Your task to perform on an android device: delete browsing data in the chrome app Image 0: 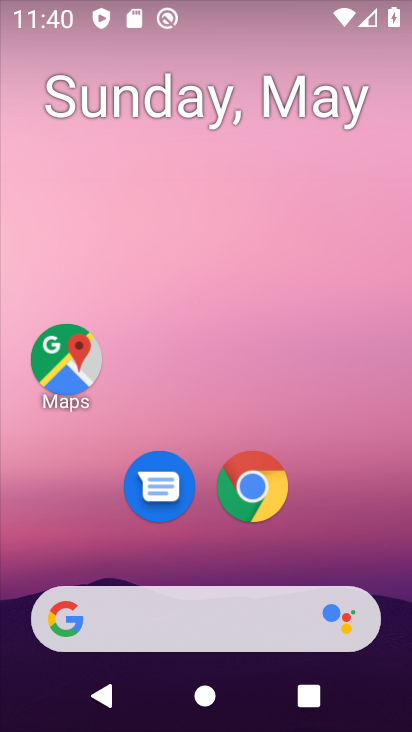
Step 0: click (255, 496)
Your task to perform on an android device: delete browsing data in the chrome app Image 1: 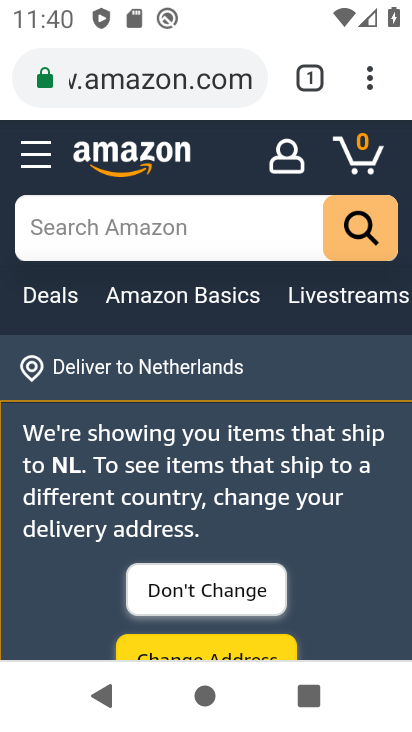
Step 1: drag from (376, 80) to (189, 452)
Your task to perform on an android device: delete browsing data in the chrome app Image 2: 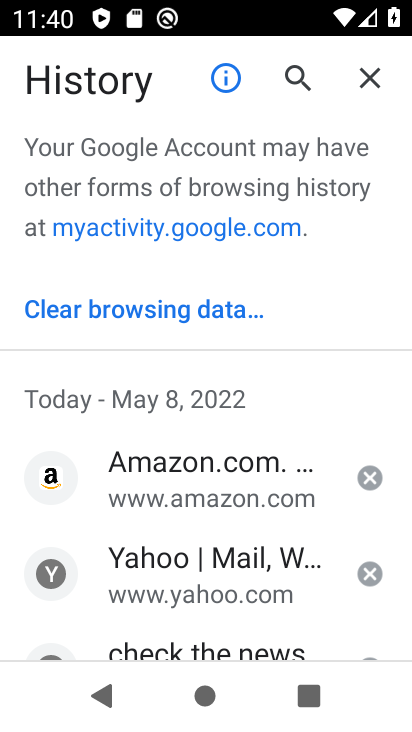
Step 2: click (192, 307)
Your task to perform on an android device: delete browsing data in the chrome app Image 3: 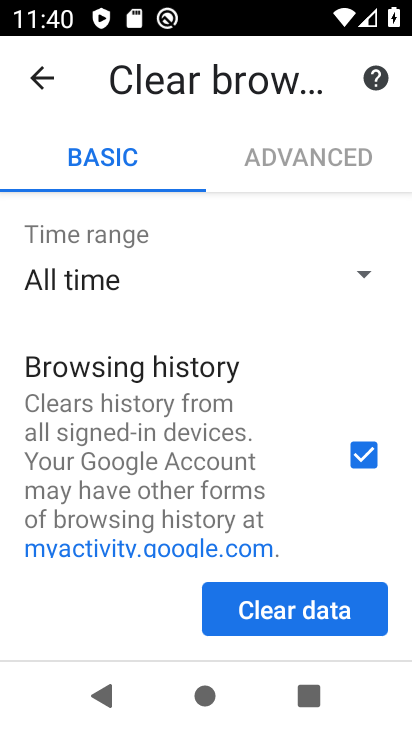
Step 3: click (331, 600)
Your task to perform on an android device: delete browsing data in the chrome app Image 4: 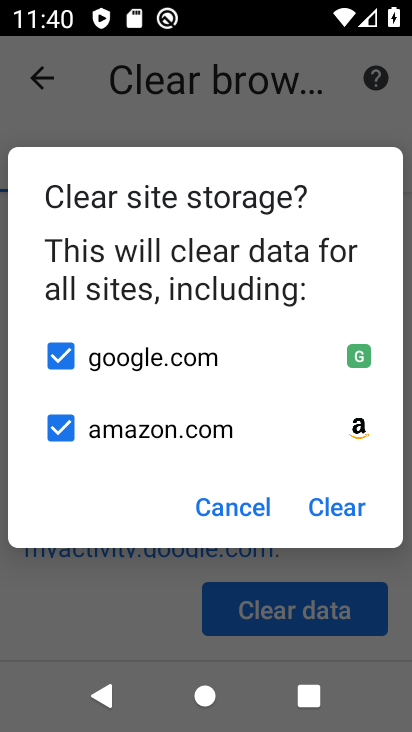
Step 4: click (330, 514)
Your task to perform on an android device: delete browsing data in the chrome app Image 5: 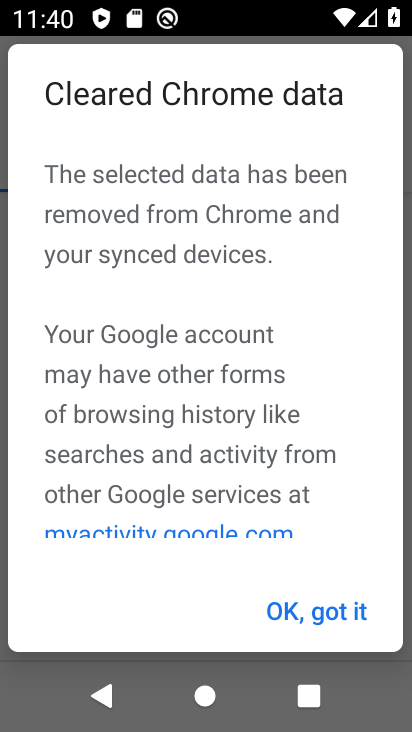
Step 5: click (351, 617)
Your task to perform on an android device: delete browsing data in the chrome app Image 6: 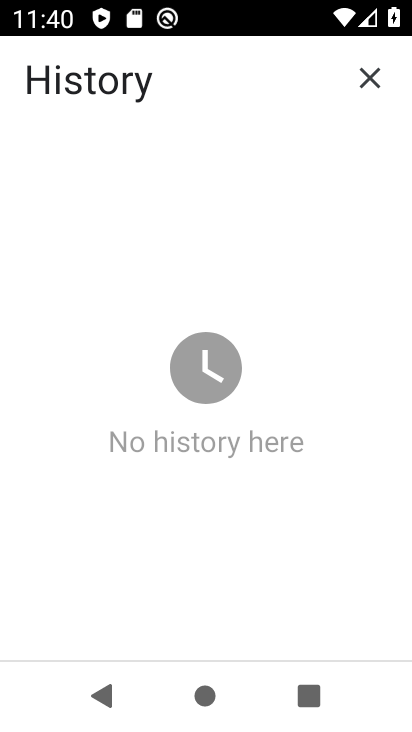
Step 6: task complete